Your task to perform on an android device: Go to wifi settings Image 0: 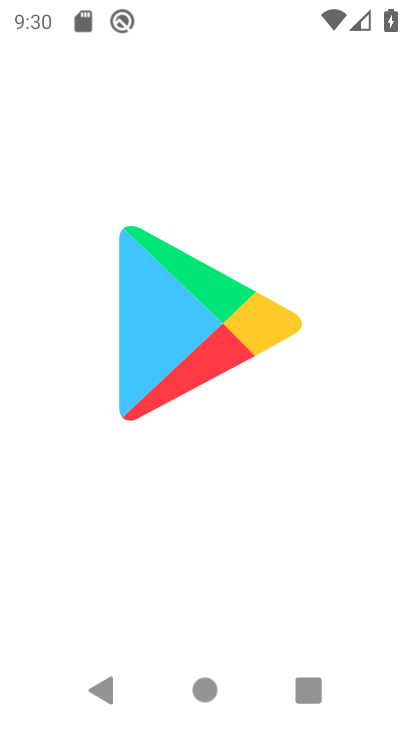
Step 0: click (374, 514)
Your task to perform on an android device: Go to wifi settings Image 1: 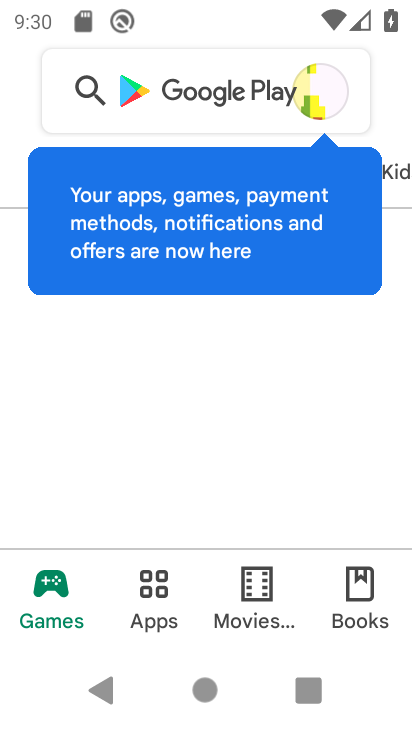
Step 1: press home button
Your task to perform on an android device: Go to wifi settings Image 2: 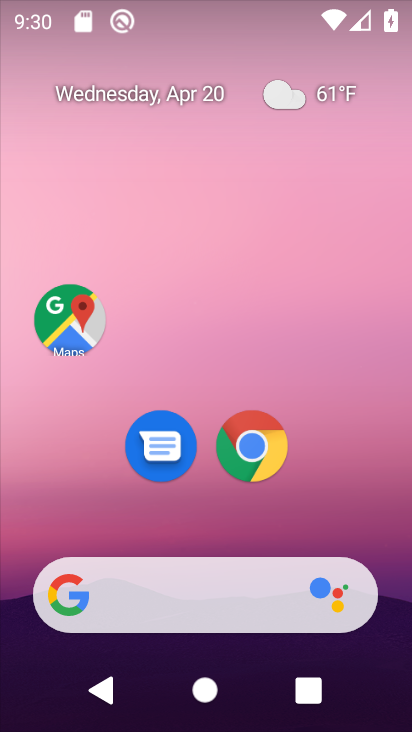
Step 2: drag from (341, 383) to (364, 83)
Your task to perform on an android device: Go to wifi settings Image 3: 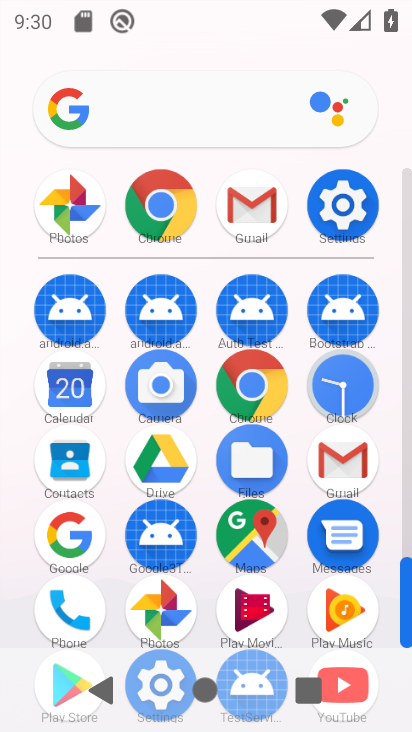
Step 3: click (338, 199)
Your task to perform on an android device: Go to wifi settings Image 4: 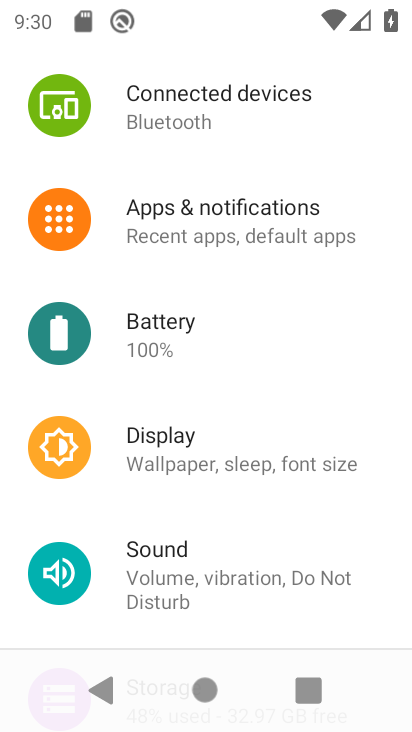
Step 4: drag from (295, 118) to (292, 550)
Your task to perform on an android device: Go to wifi settings Image 5: 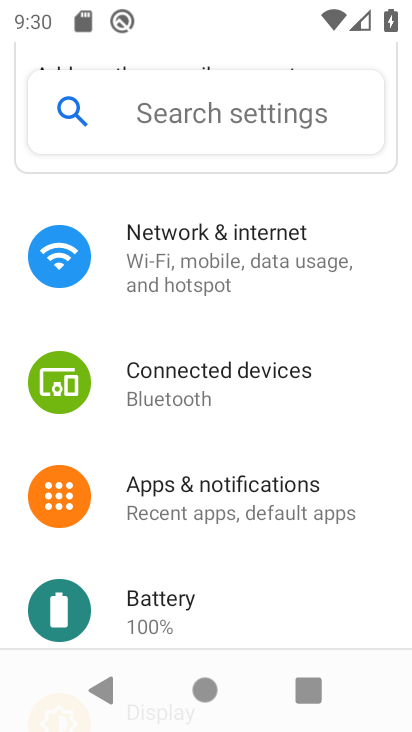
Step 5: click (276, 252)
Your task to perform on an android device: Go to wifi settings Image 6: 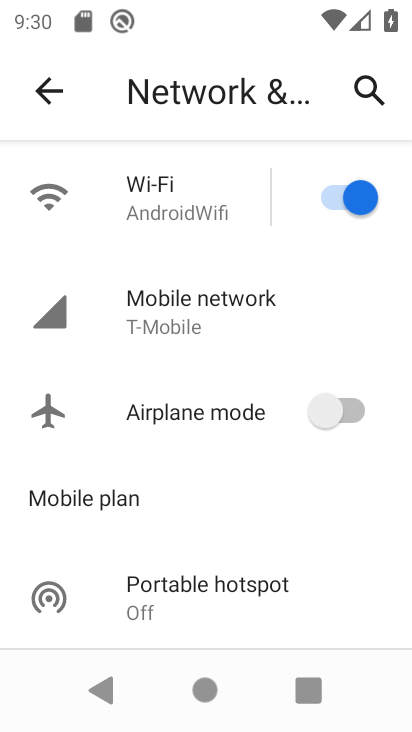
Step 6: click (207, 205)
Your task to perform on an android device: Go to wifi settings Image 7: 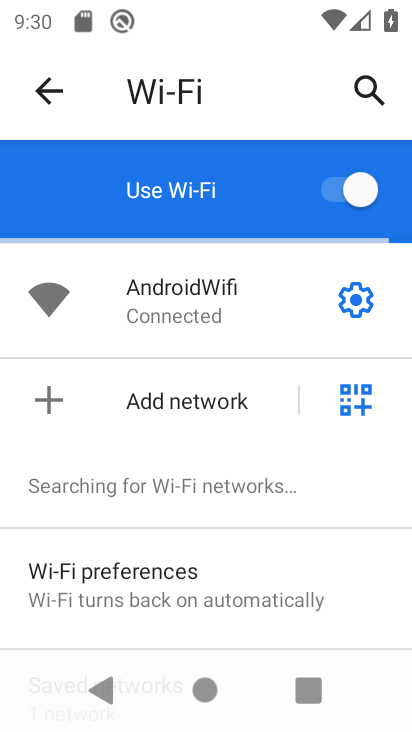
Step 7: click (348, 296)
Your task to perform on an android device: Go to wifi settings Image 8: 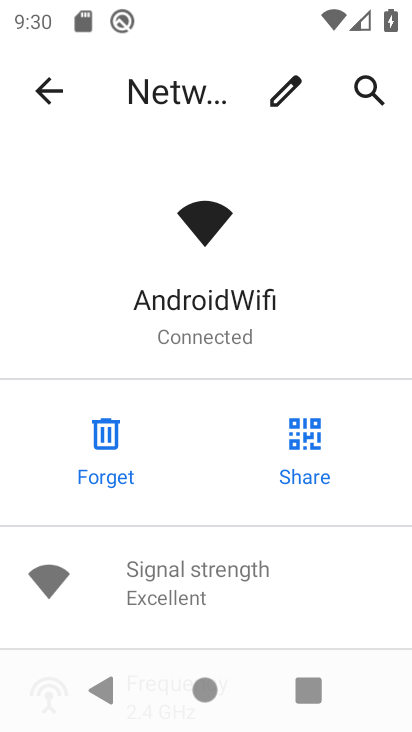
Step 8: task complete